Your task to perform on an android device: Open Youtube and go to "Your channel" Image 0: 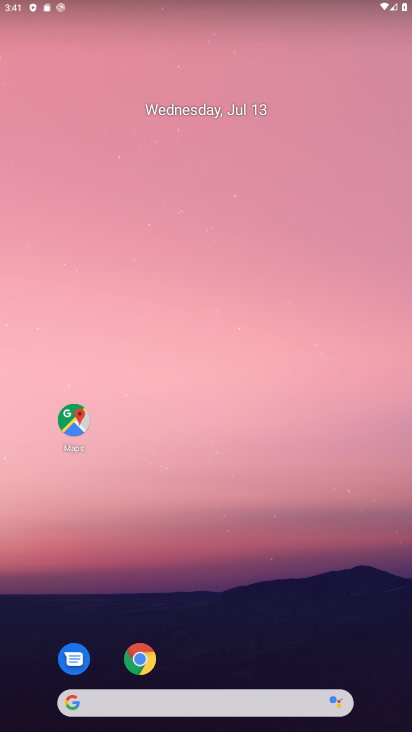
Step 0: drag from (263, 666) to (261, 181)
Your task to perform on an android device: Open Youtube and go to "Your channel" Image 1: 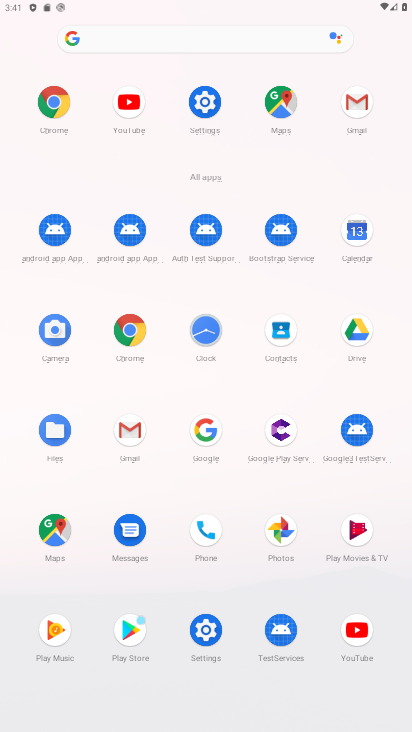
Step 1: click (355, 627)
Your task to perform on an android device: Open Youtube and go to "Your channel" Image 2: 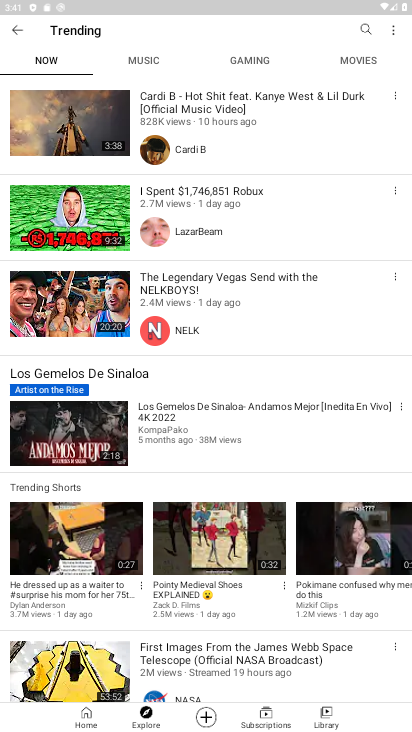
Step 2: click (16, 30)
Your task to perform on an android device: Open Youtube and go to "Your channel" Image 3: 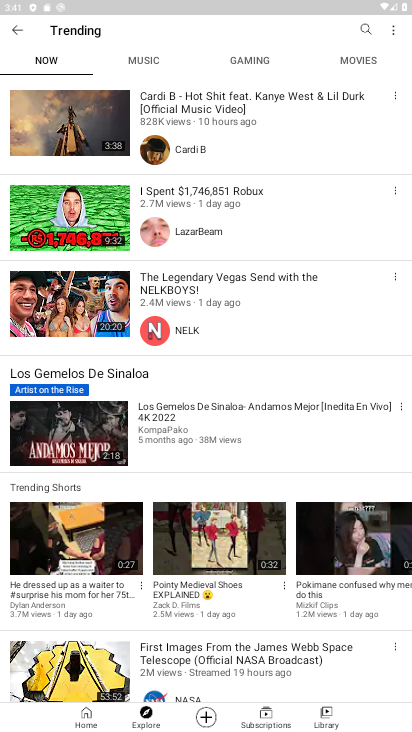
Step 3: click (19, 33)
Your task to perform on an android device: Open Youtube and go to "Your channel" Image 4: 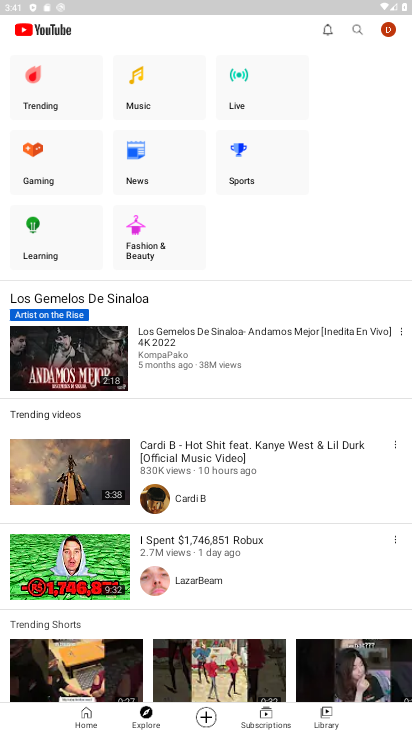
Step 4: click (387, 24)
Your task to perform on an android device: Open Youtube and go to "Your channel" Image 5: 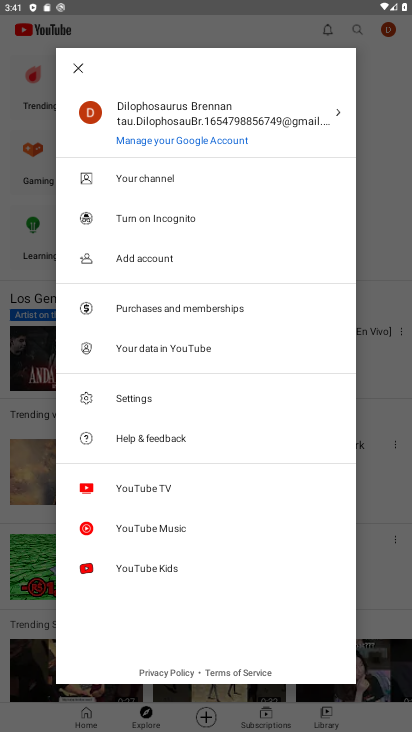
Step 5: click (137, 181)
Your task to perform on an android device: Open Youtube and go to "Your channel" Image 6: 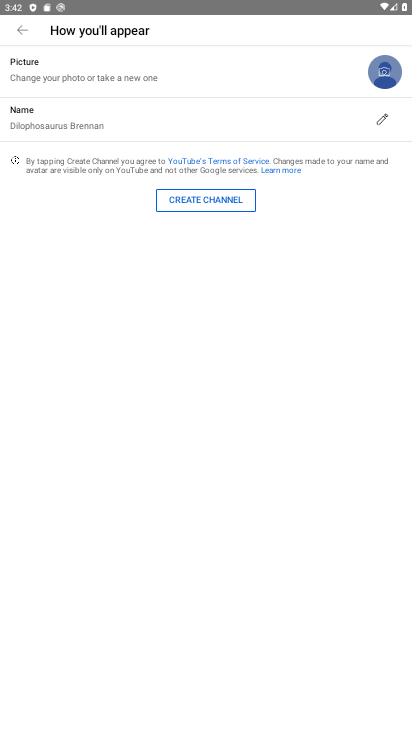
Step 6: task complete